Your task to perform on an android device: Do I have any events tomorrow? Image 0: 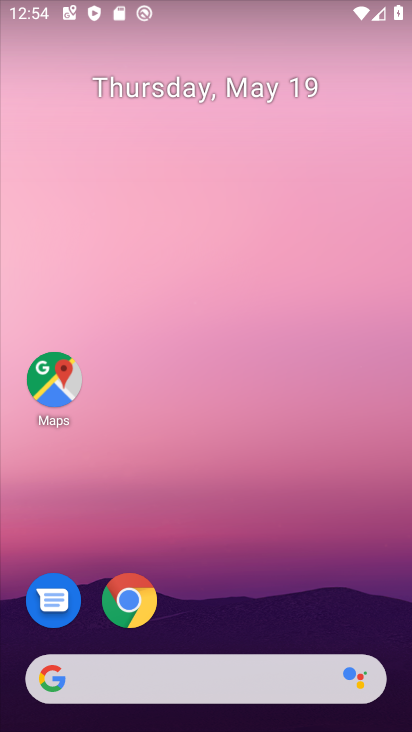
Step 0: drag from (316, 603) to (320, 268)
Your task to perform on an android device: Do I have any events tomorrow? Image 1: 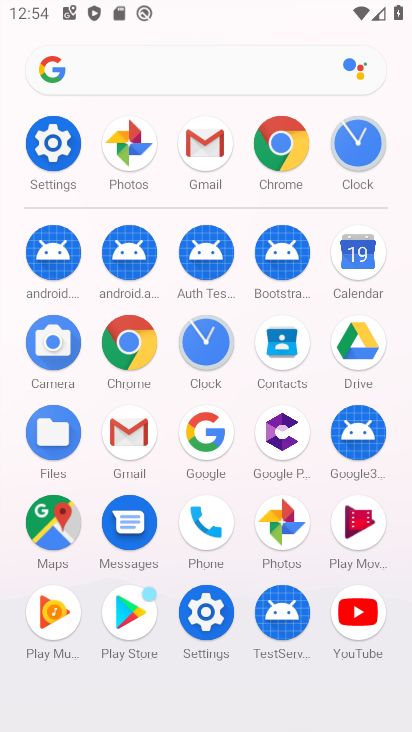
Step 1: click (353, 262)
Your task to perform on an android device: Do I have any events tomorrow? Image 2: 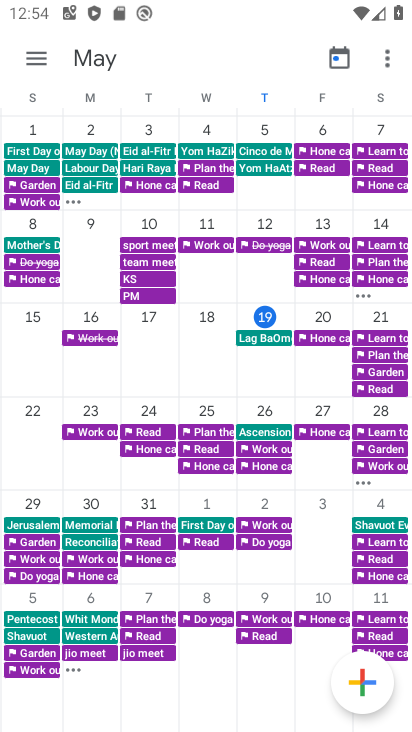
Step 2: task complete